Your task to perform on an android device: Go to Maps Image 0: 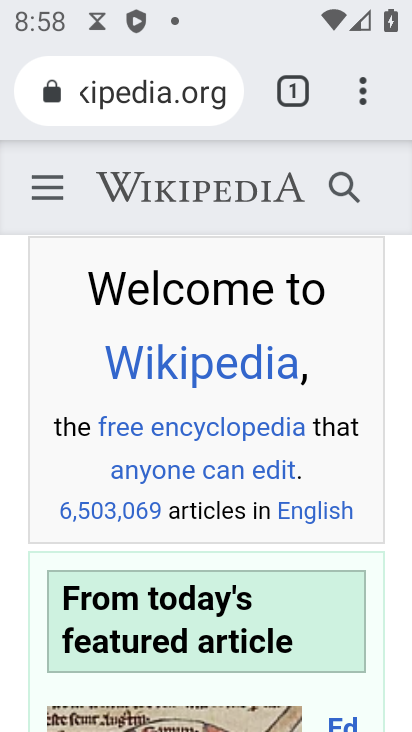
Step 0: drag from (250, 694) to (176, 261)
Your task to perform on an android device: Go to Maps Image 1: 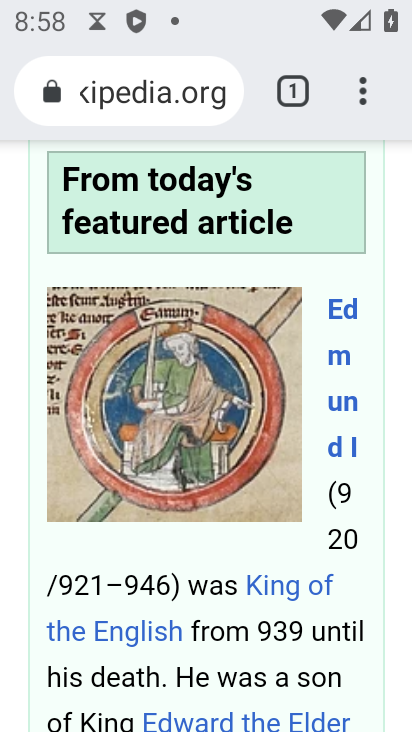
Step 1: press back button
Your task to perform on an android device: Go to Maps Image 2: 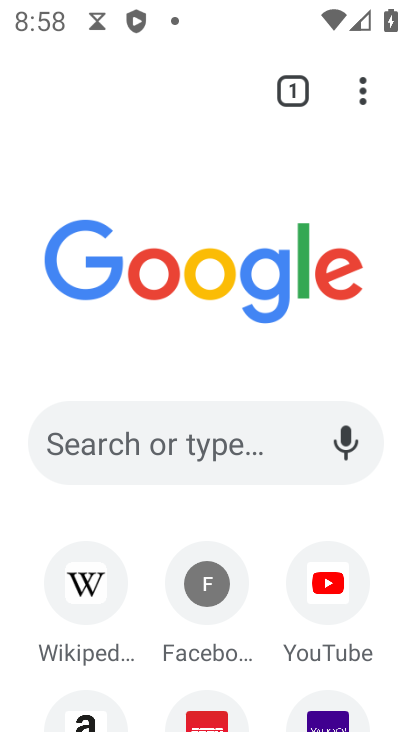
Step 2: press home button
Your task to perform on an android device: Go to Maps Image 3: 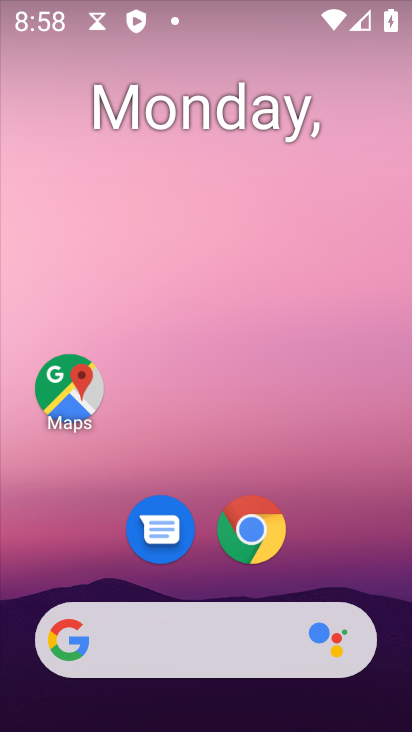
Step 3: click (74, 392)
Your task to perform on an android device: Go to Maps Image 4: 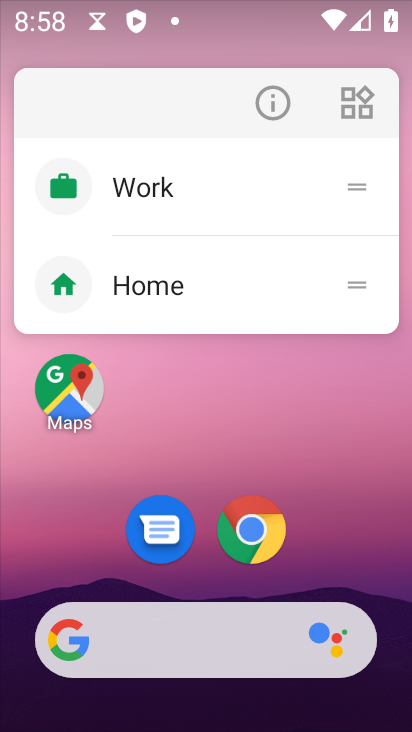
Step 4: click (73, 380)
Your task to perform on an android device: Go to Maps Image 5: 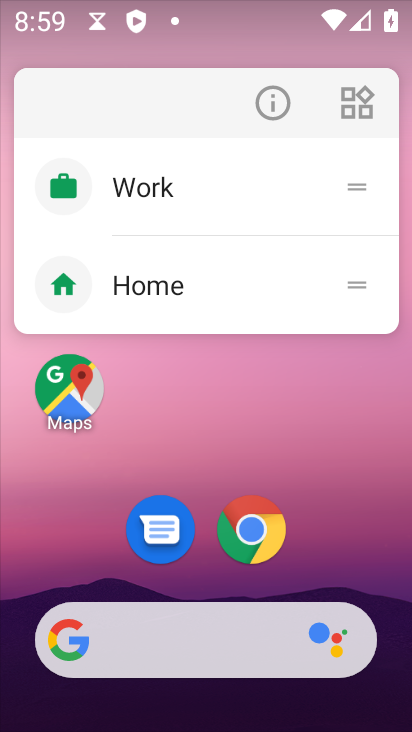
Step 5: click (88, 365)
Your task to perform on an android device: Go to Maps Image 6: 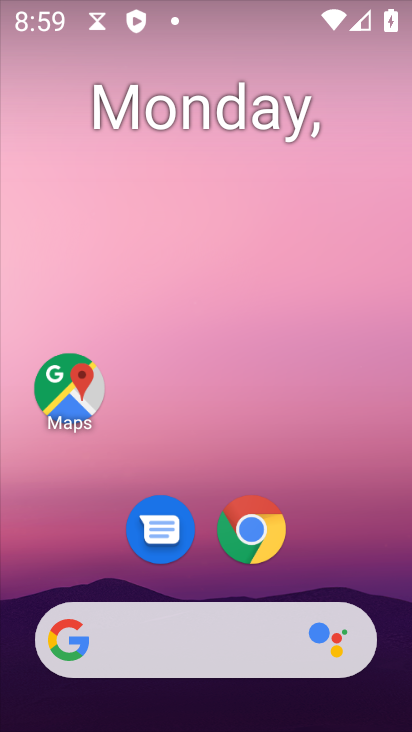
Step 6: click (90, 367)
Your task to perform on an android device: Go to Maps Image 7: 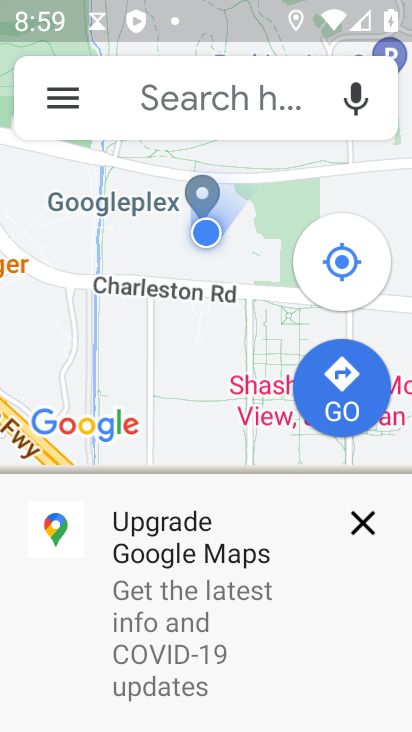
Step 7: task complete